Your task to perform on an android device: Search for seafood restaurants on Google Maps Image 0: 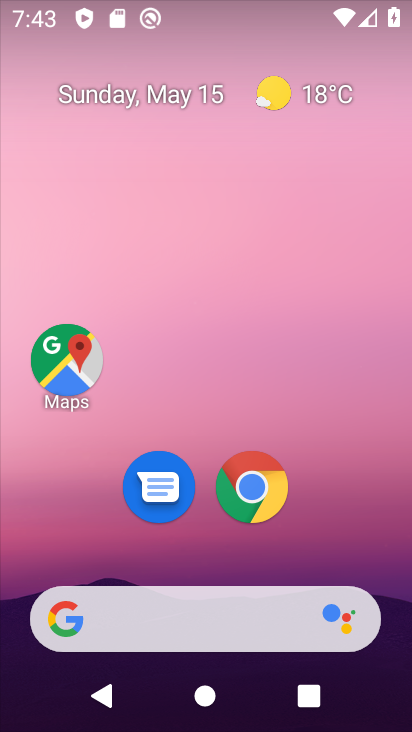
Step 0: click (58, 352)
Your task to perform on an android device: Search for seafood restaurants on Google Maps Image 1: 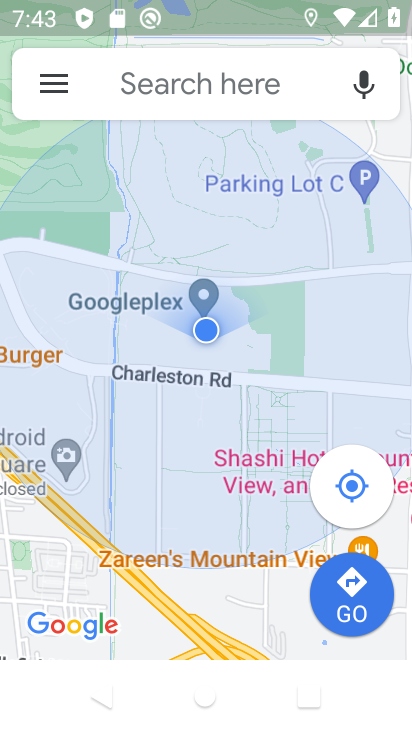
Step 1: click (159, 79)
Your task to perform on an android device: Search for seafood restaurants on Google Maps Image 2: 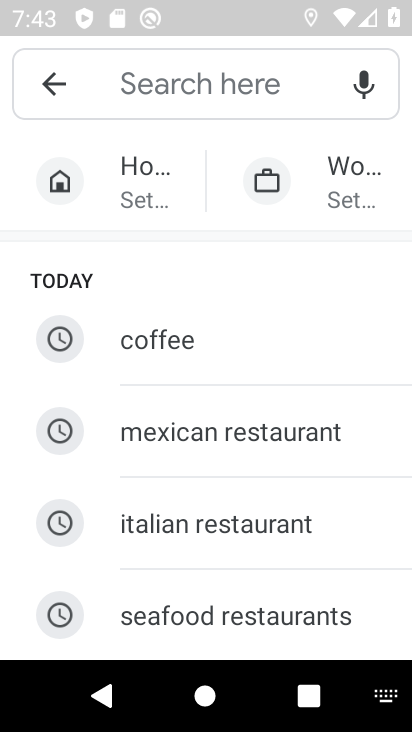
Step 2: type "seafood restaurants "
Your task to perform on an android device: Search for seafood restaurants on Google Maps Image 3: 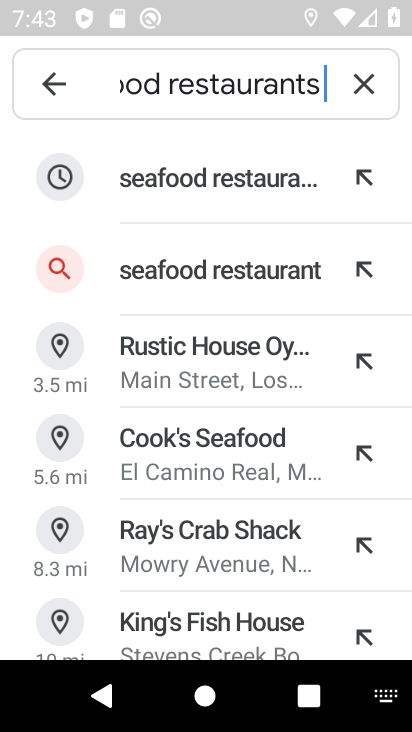
Step 3: click (189, 179)
Your task to perform on an android device: Search for seafood restaurants on Google Maps Image 4: 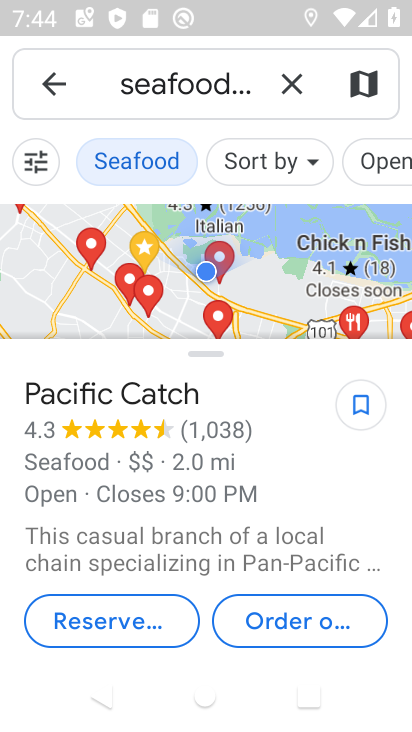
Step 4: task complete